Your task to perform on an android device: Search for Italian restaurants on Maps Image 0: 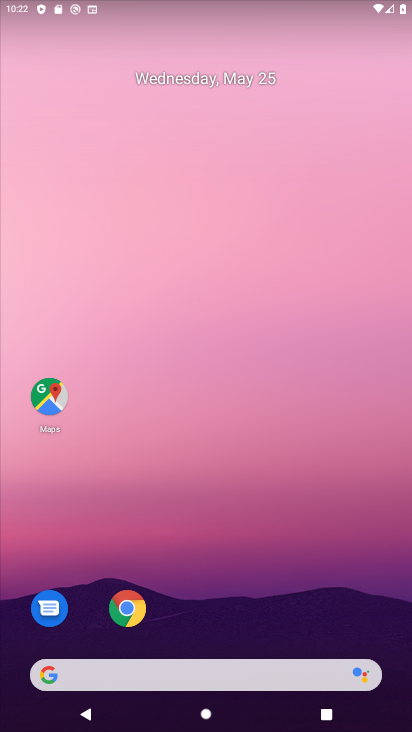
Step 0: click (48, 397)
Your task to perform on an android device: Search for Italian restaurants on Maps Image 1: 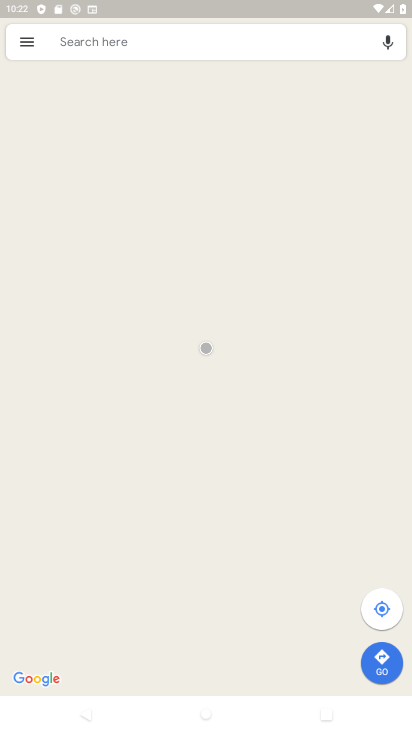
Step 1: click (160, 39)
Your task to perform on an android device: Search for Italian restaurants on Maps Image 2: 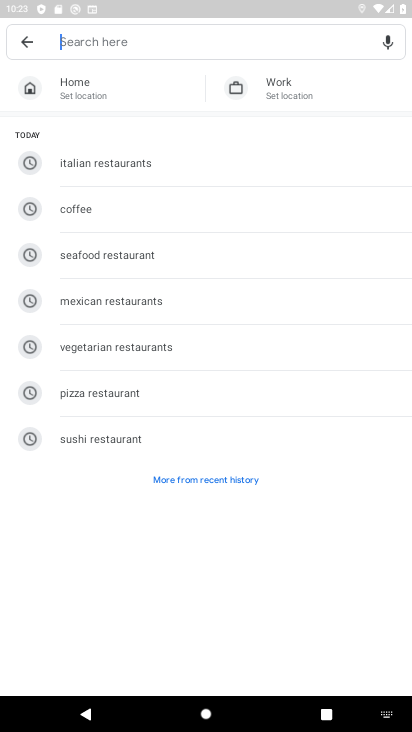
Step 2: type "Italian restaurants"
Your task to perform on an android device: Search for Italian restaurants on Maps Image 3: 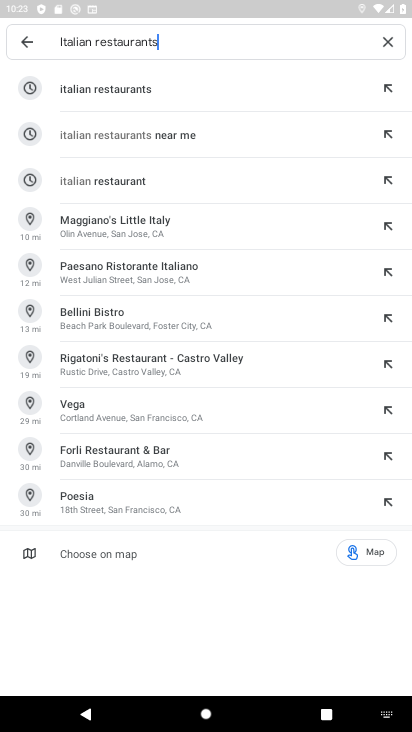
Step 3: click (116, 88)
Your task to perform on an android device: Search for Italian restaurants on Maps Image 4: 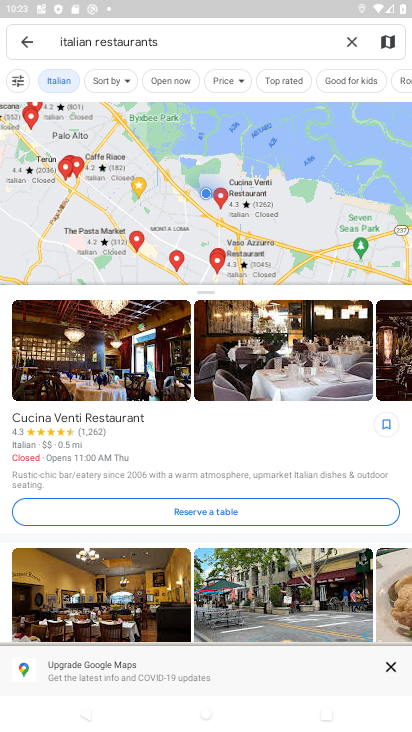
Step 4: task complete